Your task to perform on an android device: Is it going to rain tomorrow? Image 0: 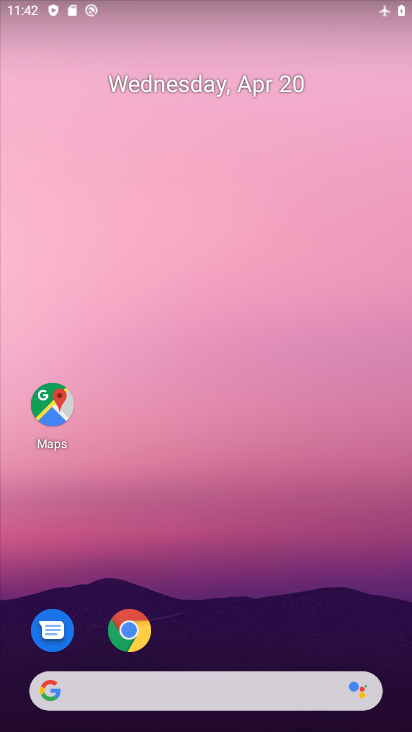
Step 0: drag from (348, 588) to (406, 85)
Your task to perform on an android device: Is it going to rain tomorrow? Image 1: 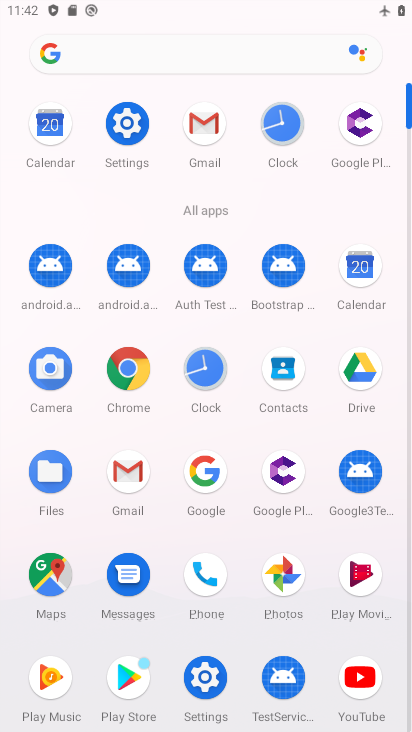
Step 1: press back button
Your task to perform on an android device: Is it going to rain tomorrow? Image 2: 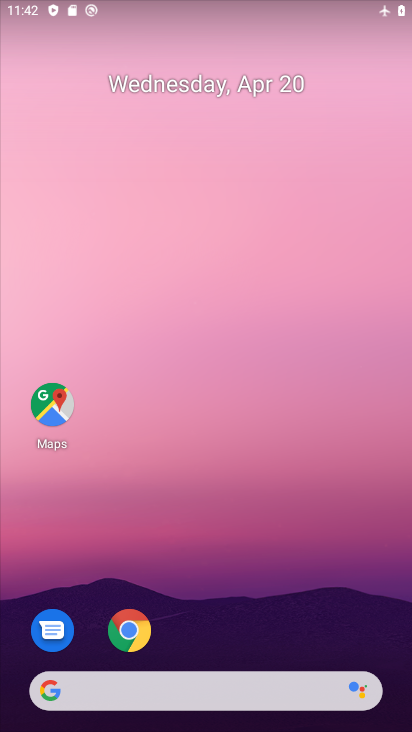
Step 2: drag from (11, 125) to (387, 112)
Your task to perform on an android device: Is it going to rain tomorrow? Image 3: 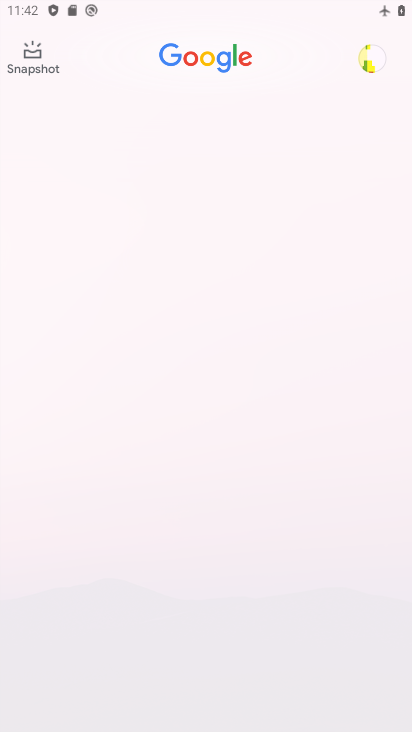
Step 3: click (238, 146)
Your task to perform on an android device: Is it going to rain tomorrow? Image 4: 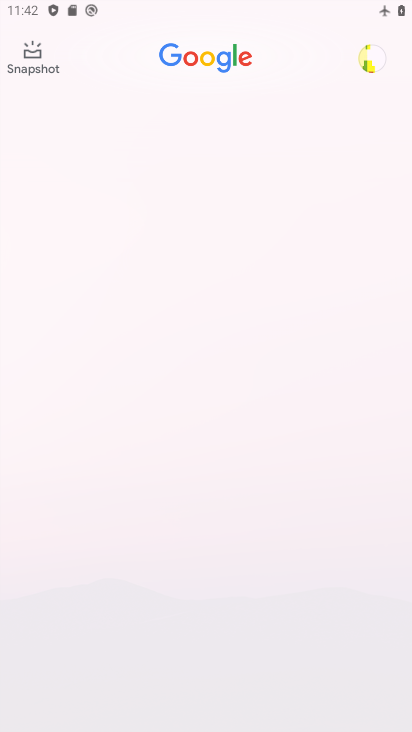
Step 4: click (89, 117)
Your task to perform on an android device: Is it going to rain tomorrow? Image 5: 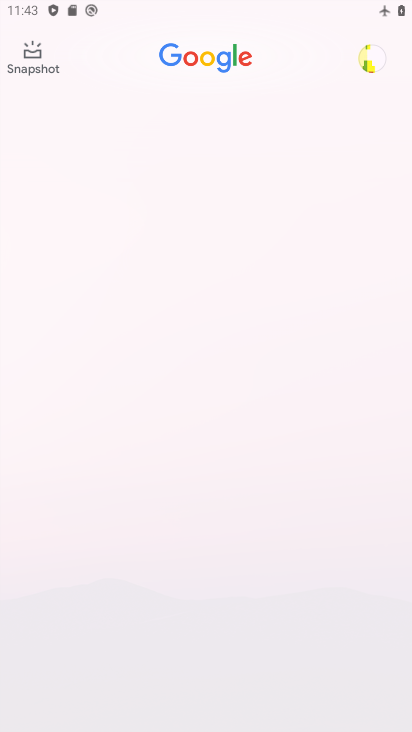
Step 5: click (68, 182)
Your task to perform on an android device: Is it going to rain tomorrow? Image 6: 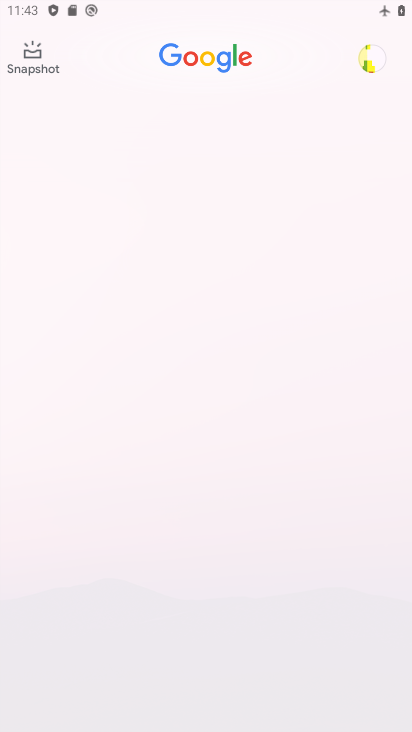
Step 6: task complete